Your task to perform on an android device: toggle improve location accuracy Image 0: 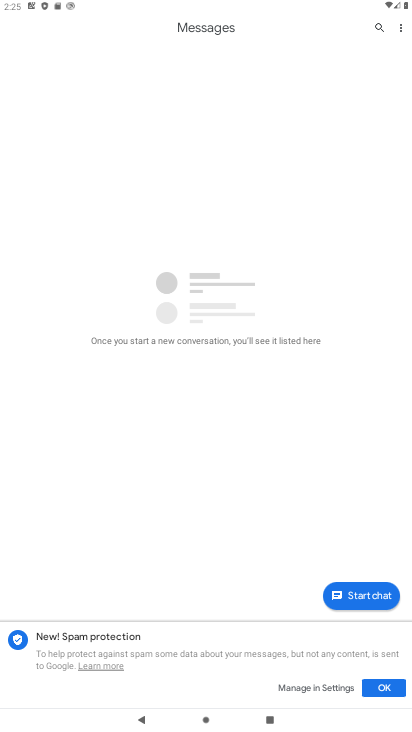
Step 0: press home button
Your task to perform on an android device: toggle improve location accuracy Image 1: 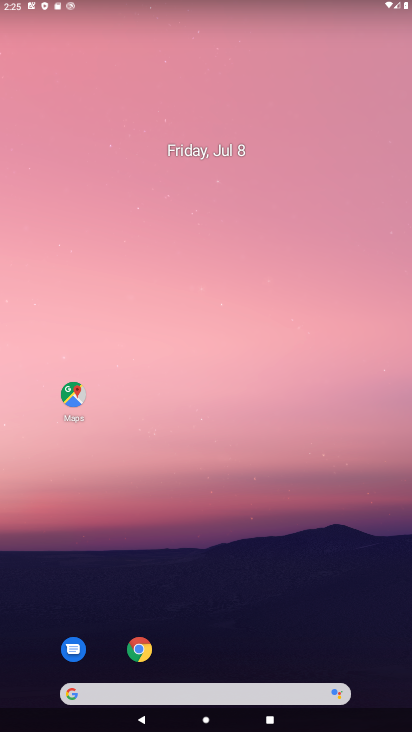
Step 1: drag from (355, 645) to (338, 28)
Your task to perform on an android device: toggle improve location accuracy Image 2: 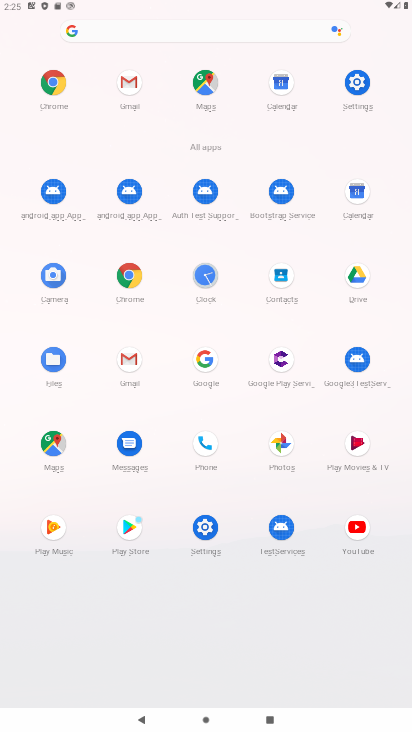
Step 2: click (203, 530)
Your task to perform on an android device: toggle improve location accuracy Image 3: 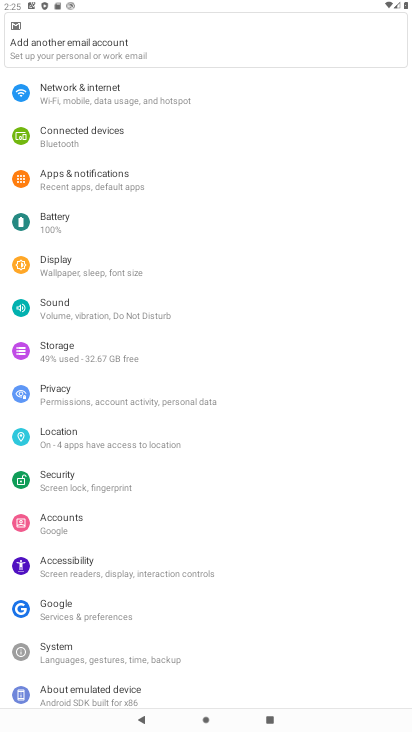
Step 3: drag from (228, 662) to (239, 339)
Your task to perform on an android device: toggle improve location accuracy Image 4: 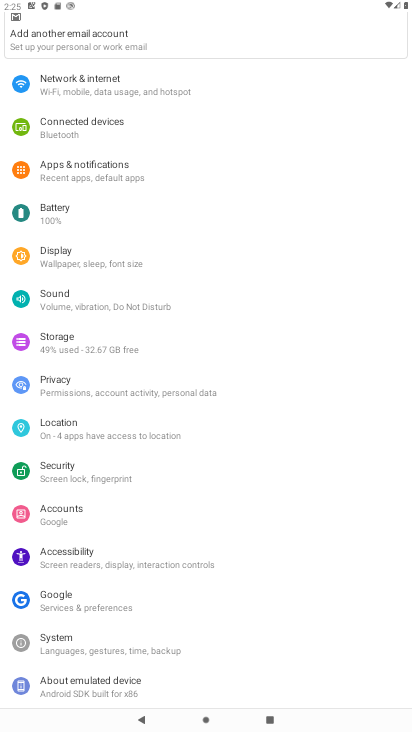
Step 4: click (71, 425)
Your task to perform on an android device: toggle improve location accuracy Image 5: 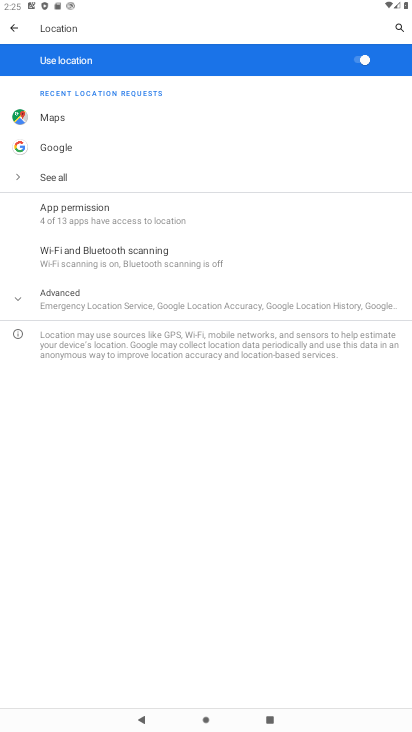
Step 5: click (35, 300)
Your task to perform on an android device: toggle improve location accuracy Image 6: 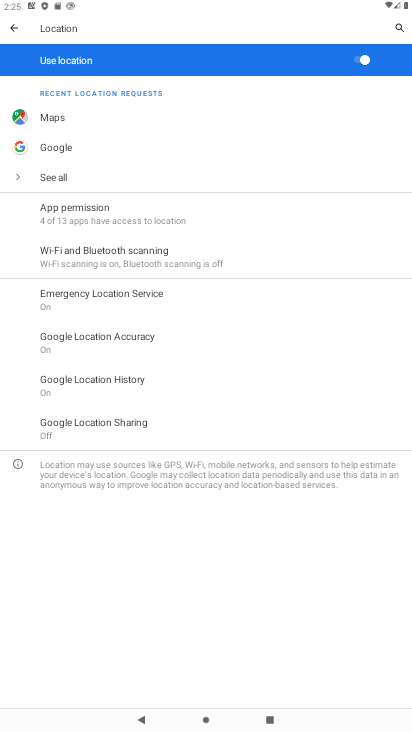
Step 6: click (103, 341)
Your task to perform on an android device: toggle improve location accuracy Image 7: 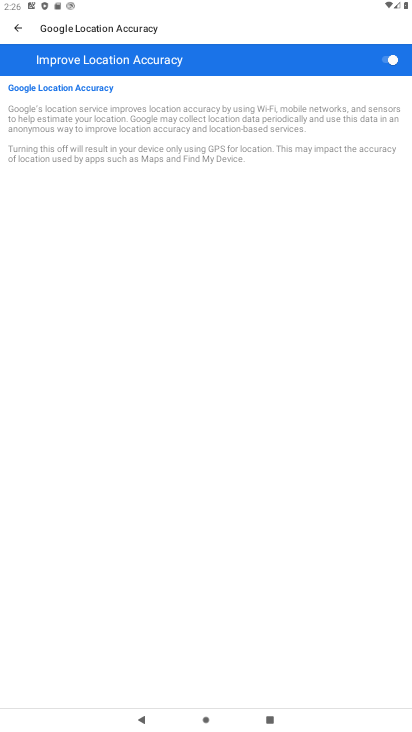
Step 7: click (384, 61)
Your task to perform on an android device: toggle improve location accuracy Image 8: 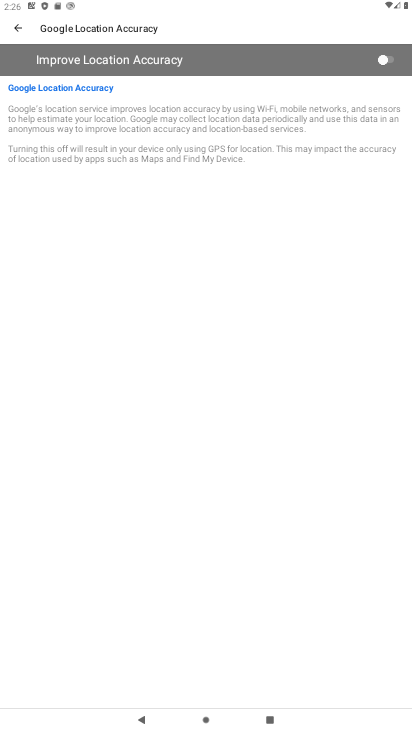
Step 8: task complete